Your task to perform on an android device: What's a good restaurant in Atlanta? Image 0: 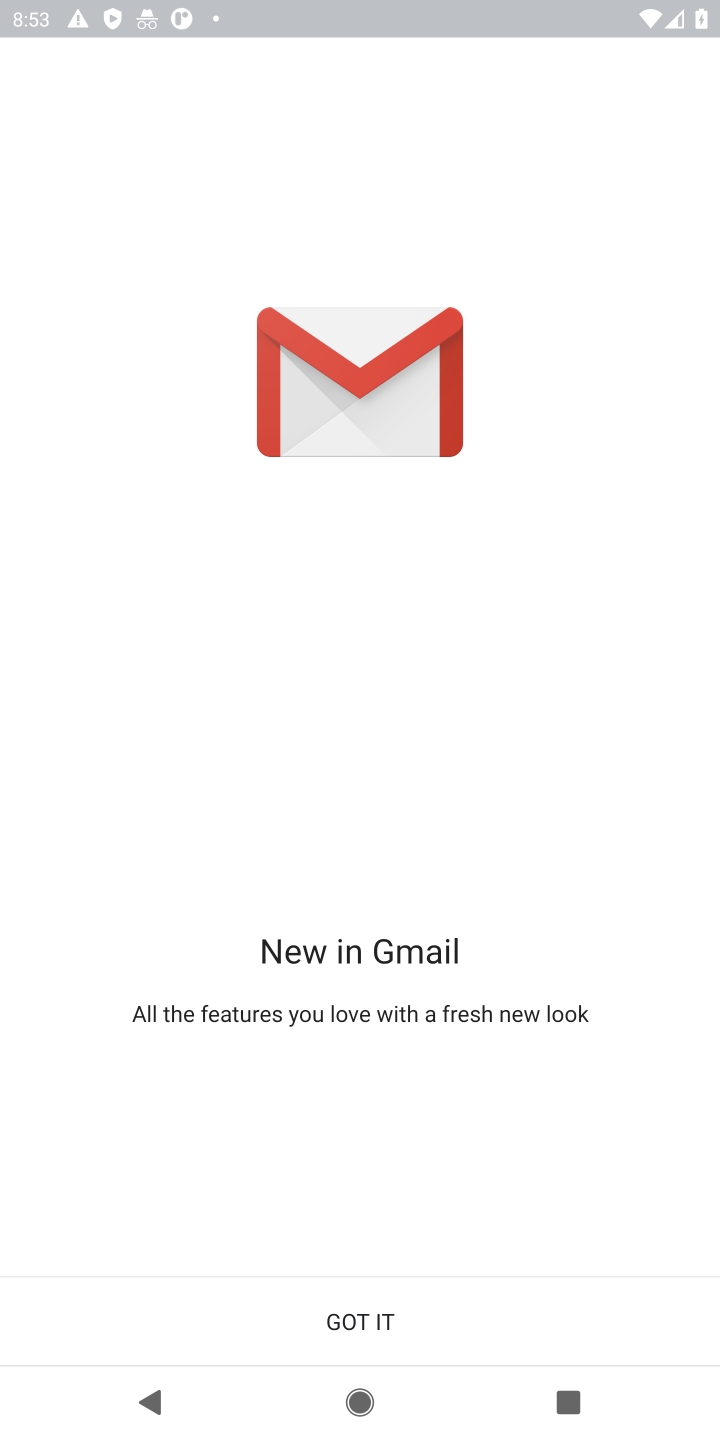
Step 0: press home button
Your task to perform on an android device: What's a good restaurant in Atlanta? Image 1: 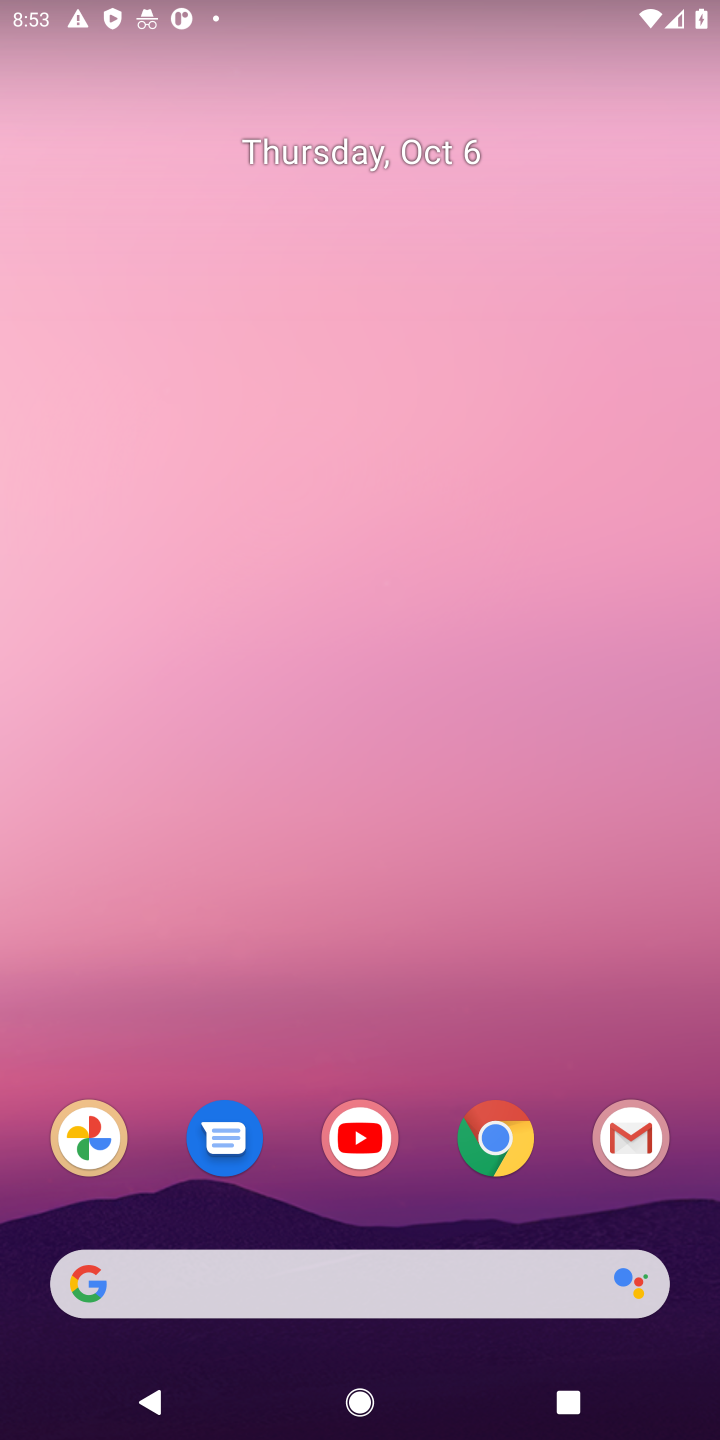
Step 1: drag from (418, 1227) to (634, 381)
Your task to perform on an android device: What's a good restaurant in Atlanta? Image 2: 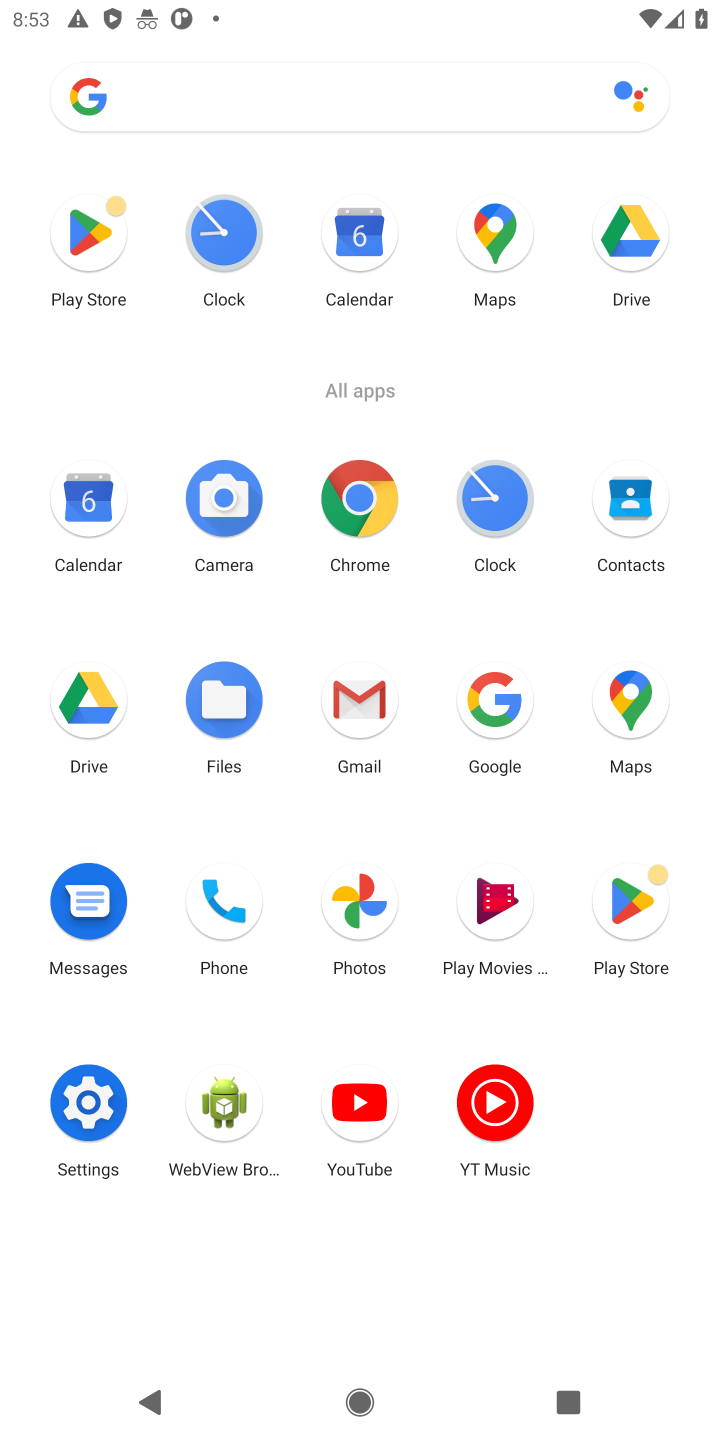
Step 2: click (86, 231)
Your task to perform on an android device: What's a good restaurant in Atlanta? Image 3: 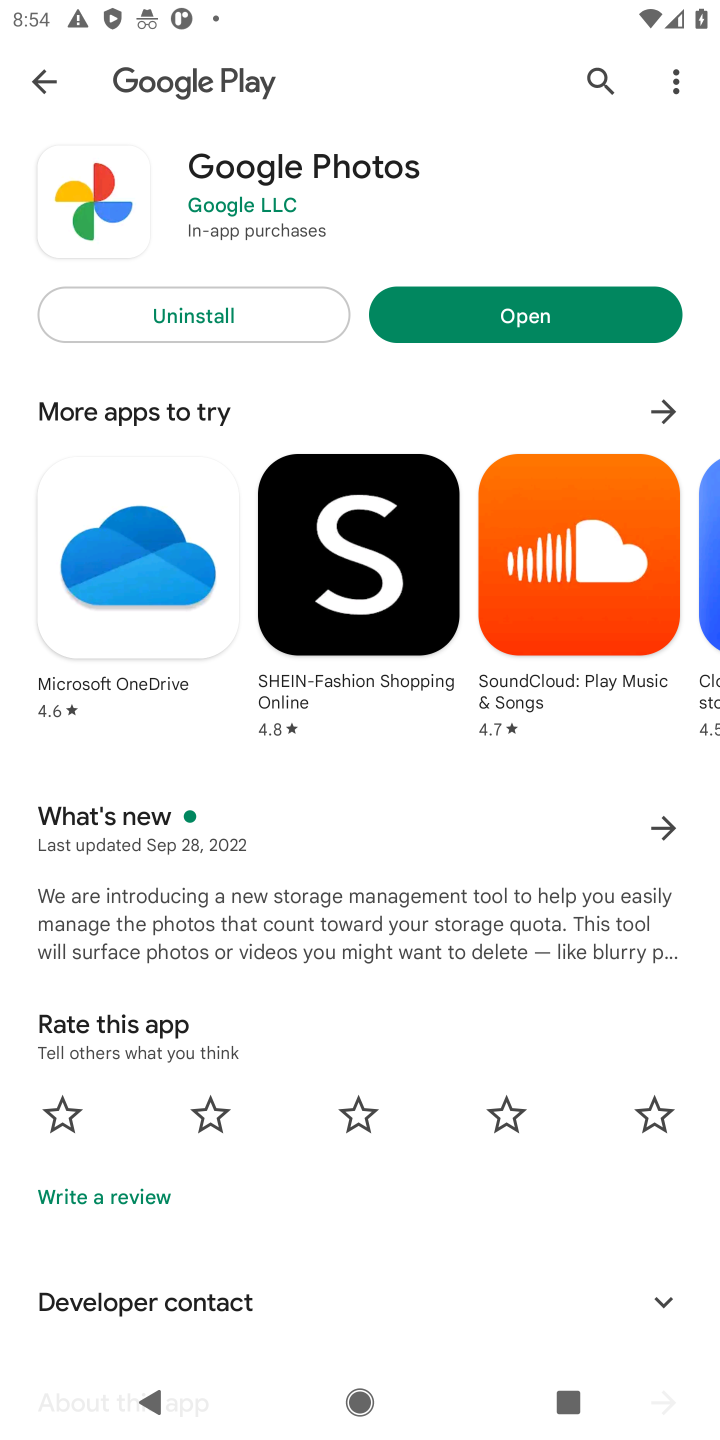
Step 3: press back button
Your task to perform on an android device: What's a good restaurant in Atlanta? Image 4: 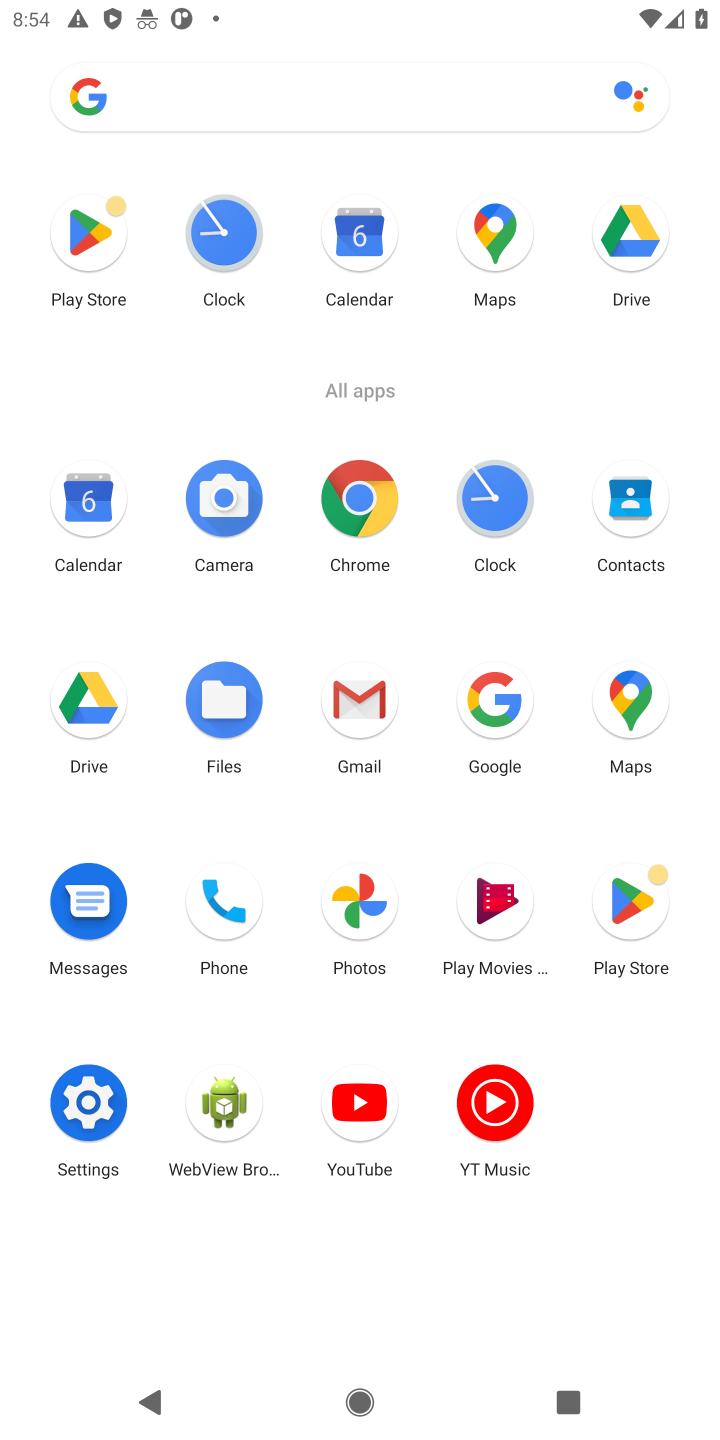
Step 4: click (628, 700)
Your task to perform on an android device: What's a good restaurant in Atlanta? Image 5: 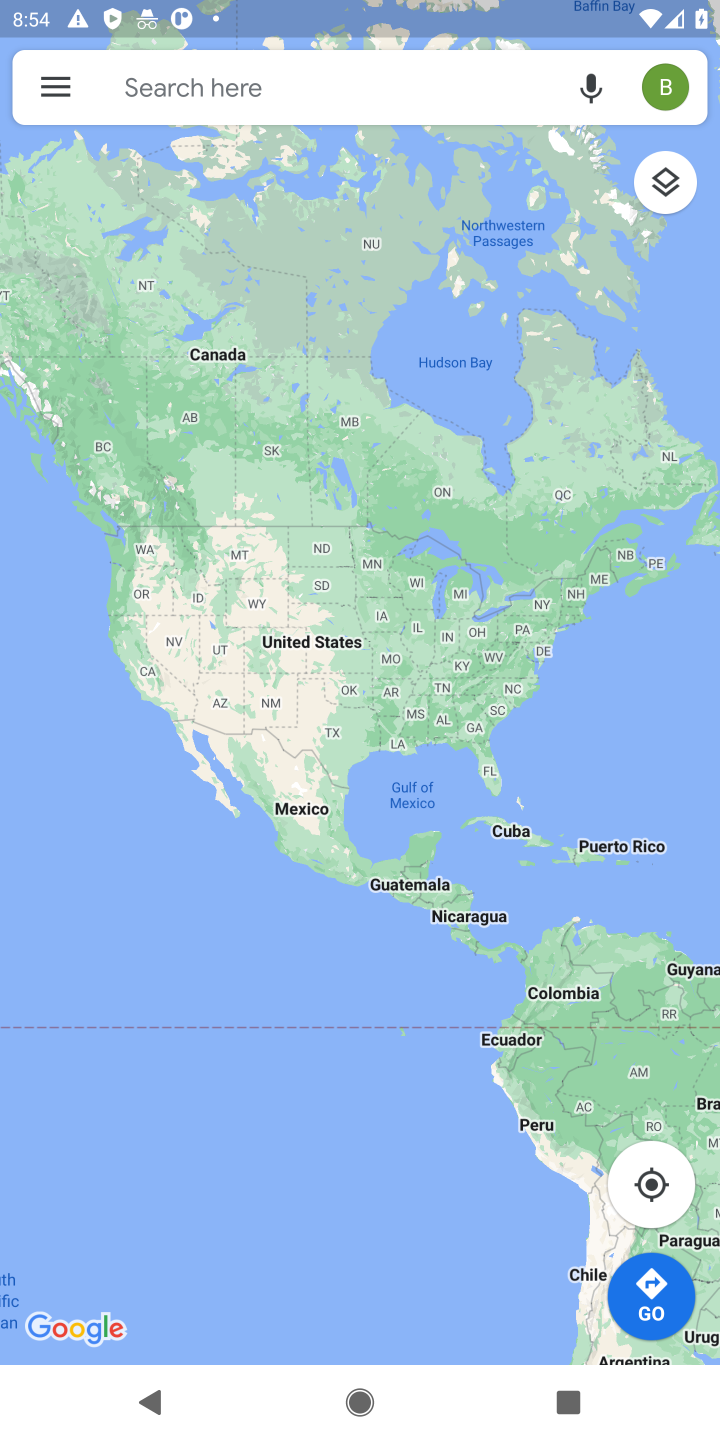
Step 5: click (220, 94)
Your task to perform on an android device: What's a good restaurant in Atlanta? Image 6: 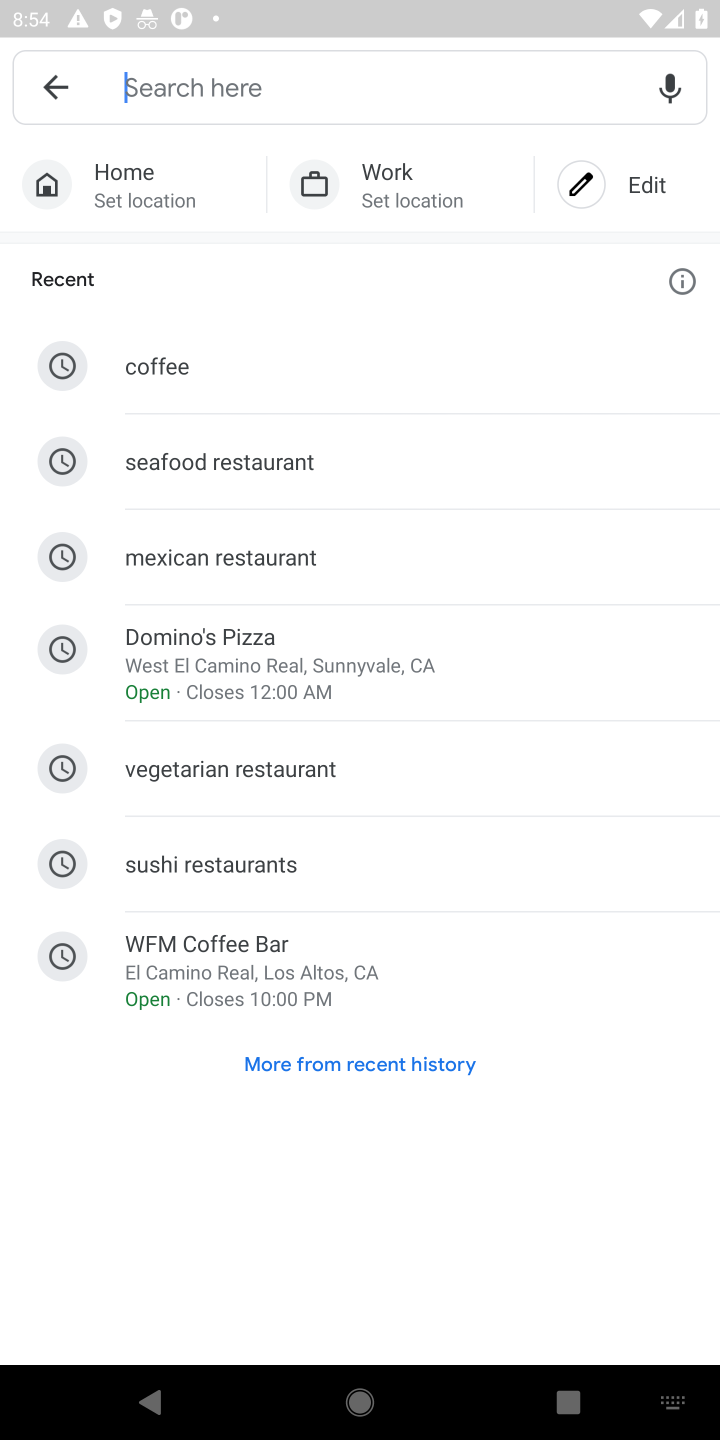
Step 6: type "restaurant in Atlanta"
Your task to perform on an android device: What's a good restaurant in Atlanta? Image 7: 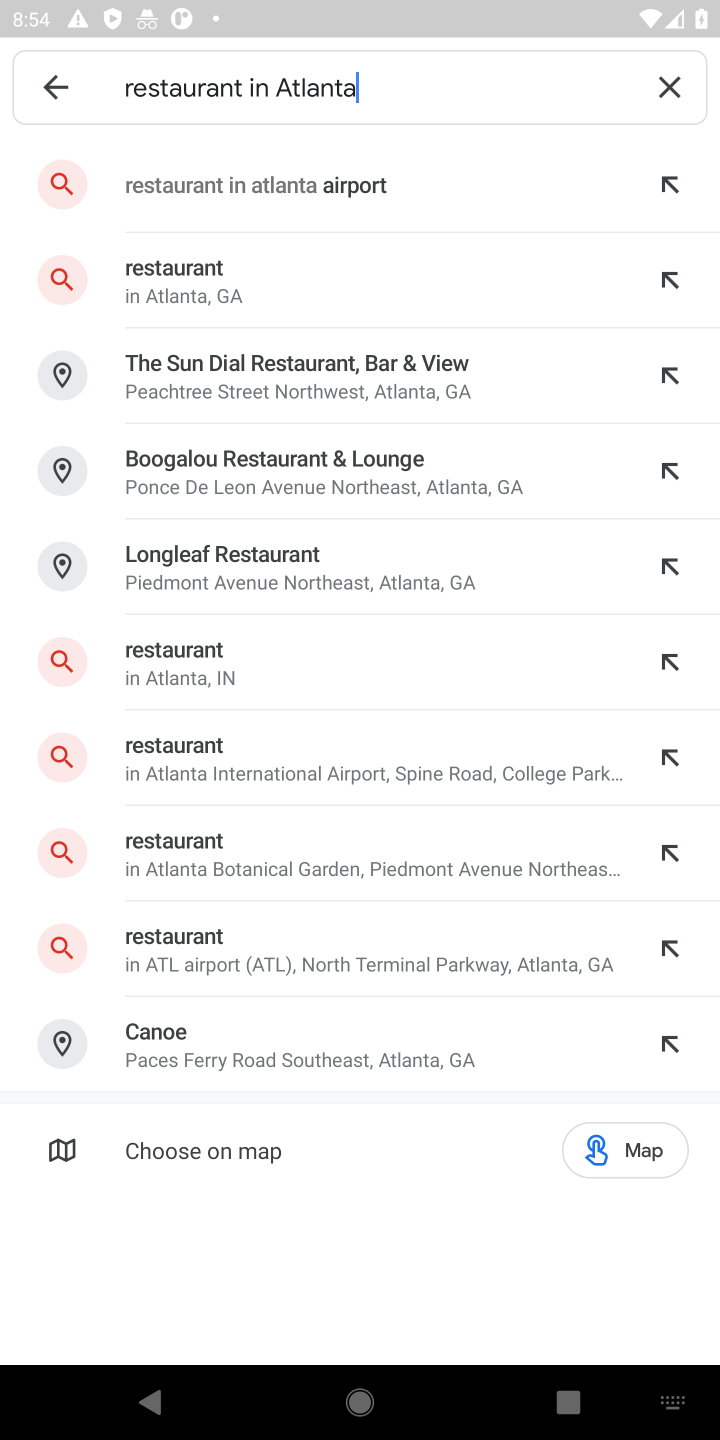
Step 7: click (165, 286)
Your task to perform on an android device: What's a good restaurant in Atlanta? Image 8: 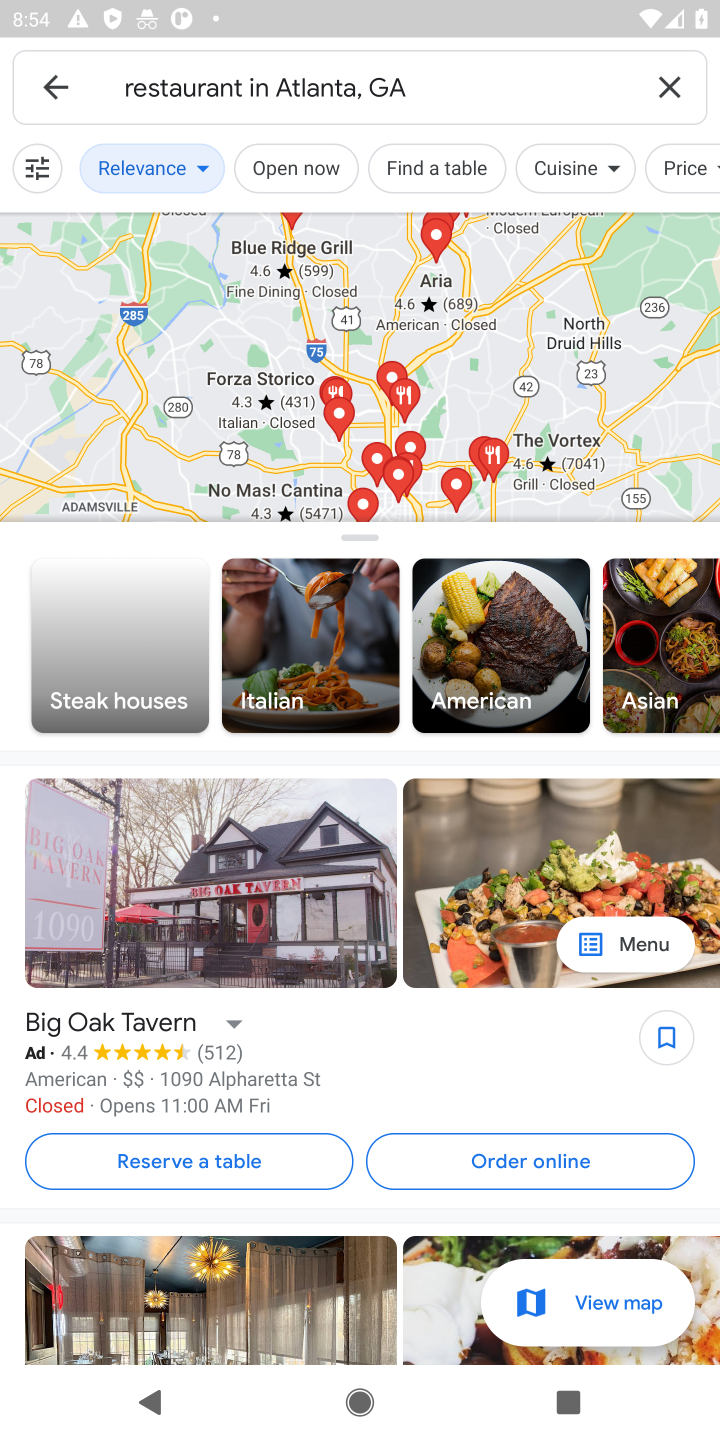
Step 8: task complete